Your task to perform on an android device: change your default location settings in chrome Image 0: 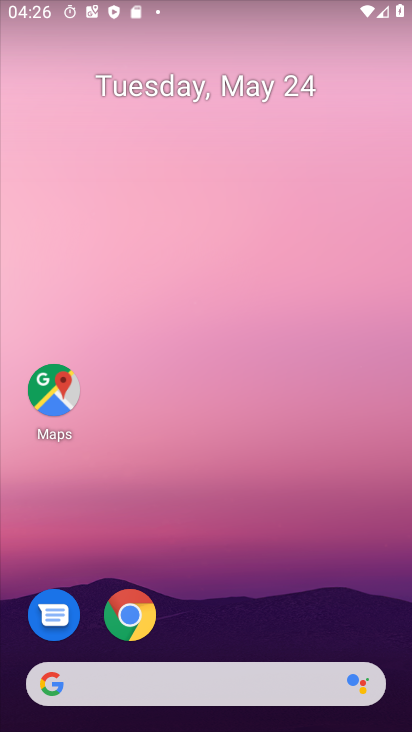
Step 0: click (123, 600)
Your task to perform on an android device: change your default location settings in chrome Image 1: 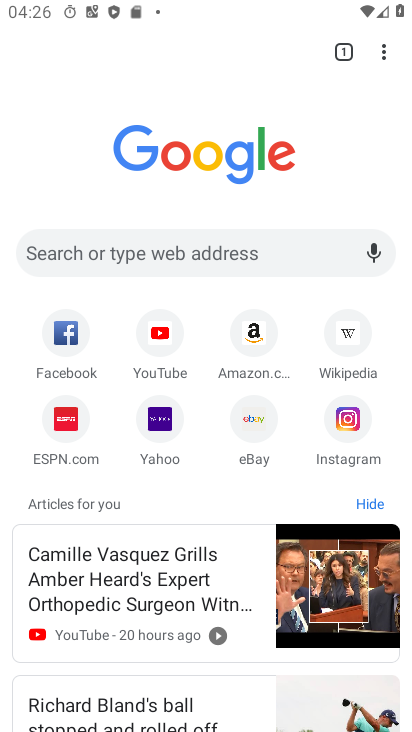
Step 1: drag from (385, 55) to (216, 440)
Your task to perform on an android device: change your default location settings in chrome Image 2: 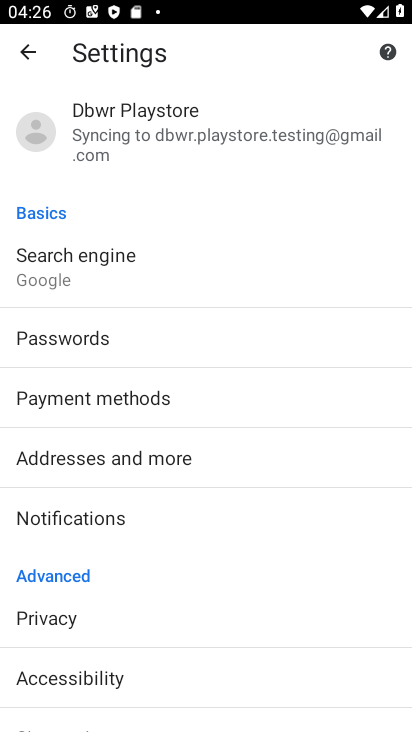
Step 2: drag from (146, 628) to (227, 182)
Your task to perform on an android device: change your default location settings in chrome Image 3: 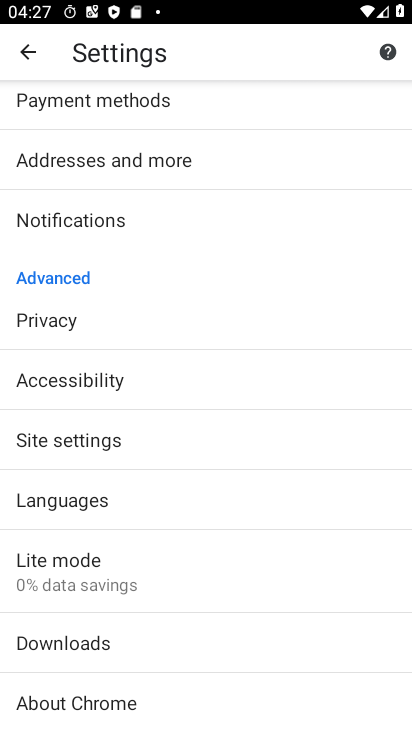
Step 3: click (86, 444)
Your task to perform on an android device: change your default location settings in chrome Image 4: 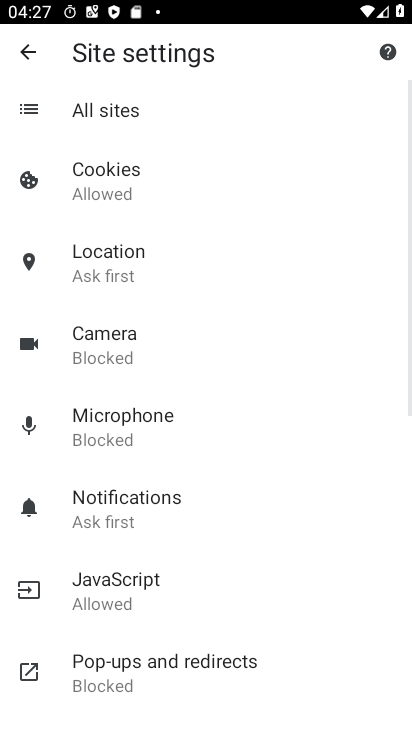
Step 4: click (102, 255)
Your task to perform on an android device: change your default location settings in chrome Image 5: 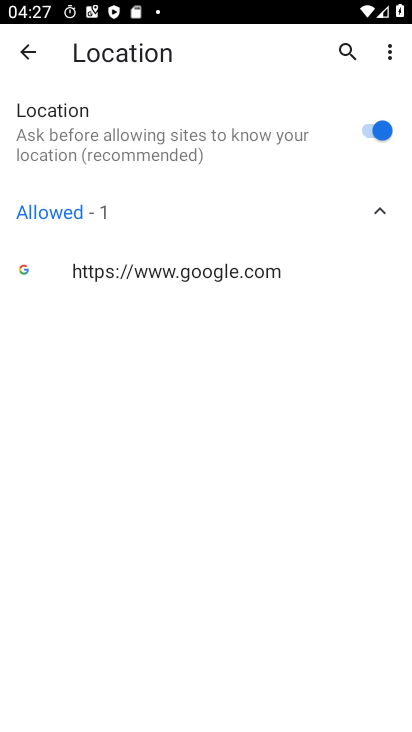
Step 5: click (237, 274)
Your task to perform on an android device: change your default location settings in chrome Image 6: 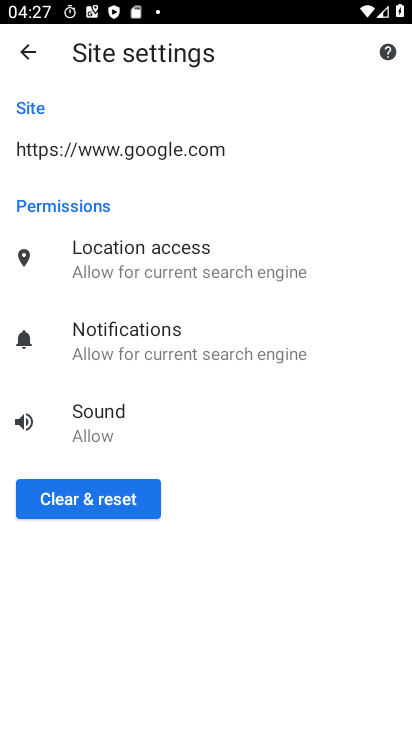
Step 6: click (117, 240)
Your task to perform on an android device: change your default location settings in chrome Image 7: 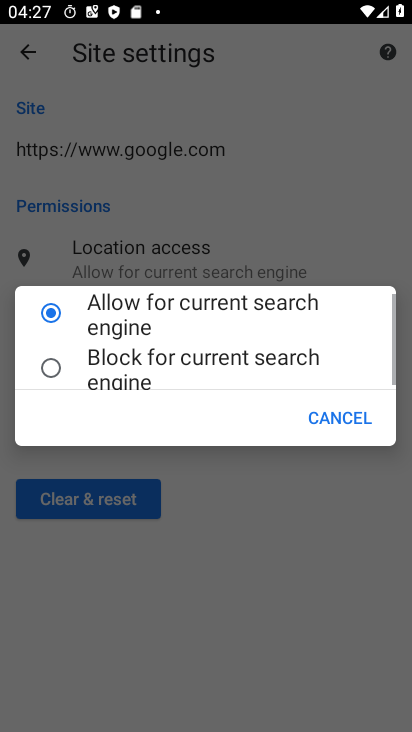
Step 7: click (125, 367)
Your task to perform on an android device: change your default location settings in chrome Image 8: 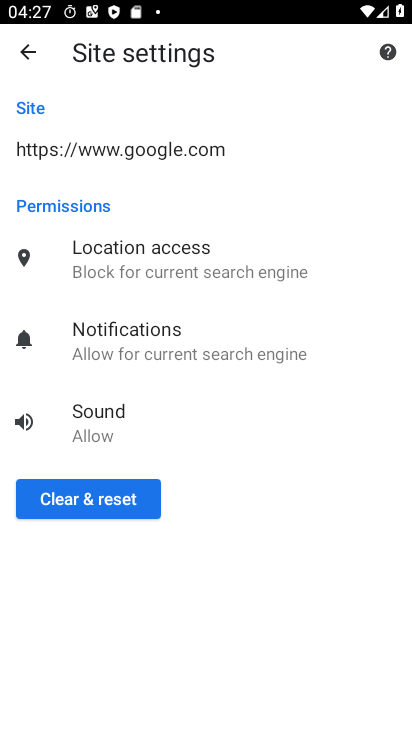
Step 8: task complete